Your task to perform on an android device: Is it going to rain tomorrow? Image 0: 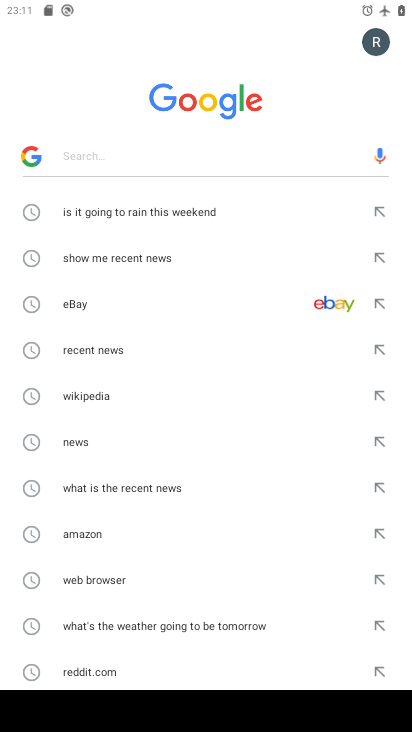
Step 0: click (173, 201)
Your task to perform on an android device: Is it going to rain tomorrow? Image 1: 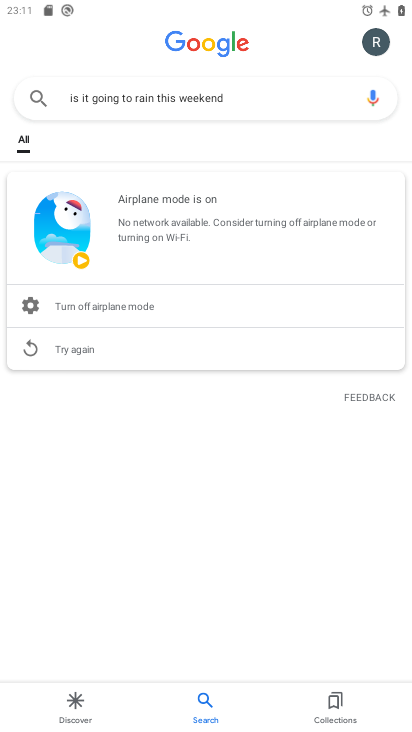
Step 1: press home button
Your task to perform on an android device: Is it going to rain tomorrow? Image 2: 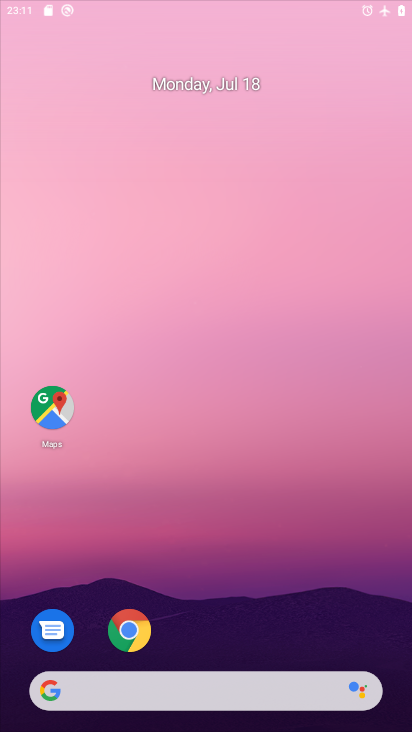
Step 2: drag from (143, 618) to (179, 321)
Your task to perform on an android device: Is it going to rain tomorrow? Image 3: 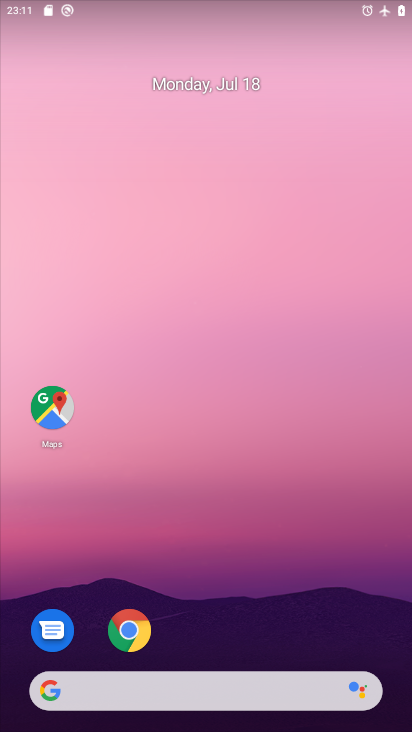
Step 3: click (124, 638)
Your task to perform on an android device: Is it going to rain tomorrow? Image 4: 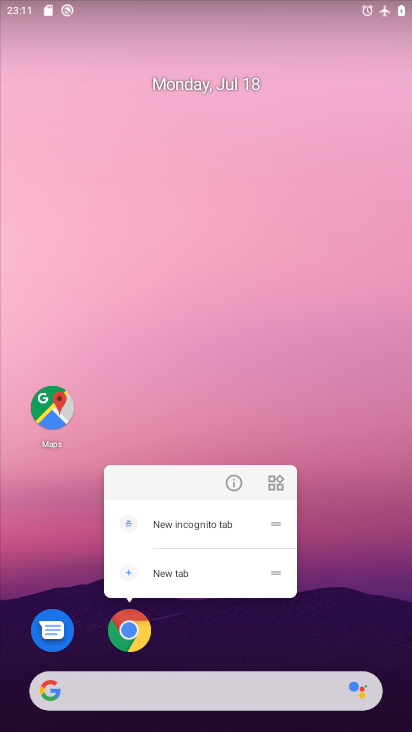
Step 4: click (124, 638)
Your task to perform on an android device: Is it going to rain tomorrow? Image 5: 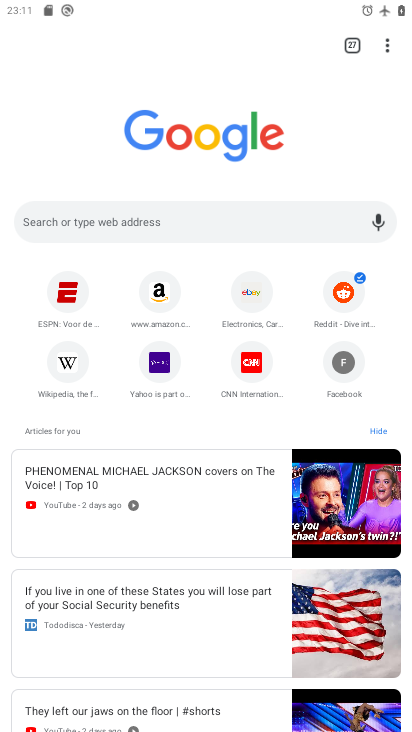
Step 5: click (113, 225)
Your task to perform on an android device: Is it going to rain tomorrow? Image 6: 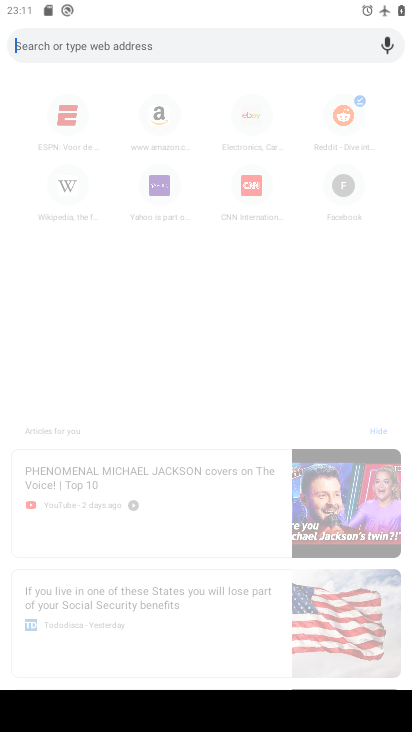
Step 6: type "Is it going to rain tomorrow "
Your task to perform on an android device: Is it going to rain tomorrow? Image 7: 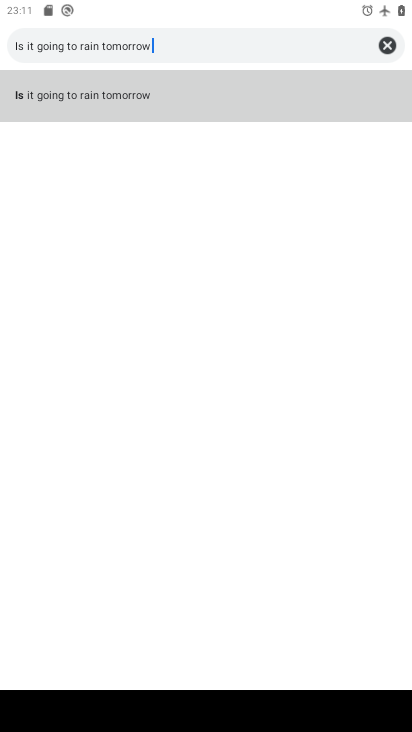
Step 7: click (111, 87)
Your task to perform on an android device: Is it going to rain tomorrow? Image 8: 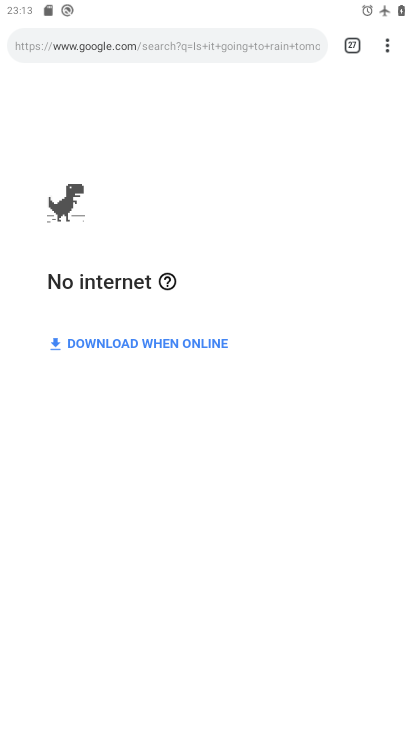
Step 8: task complete